Your task to perform on an android device: turn off priority inbox in the gmail app Image 0: 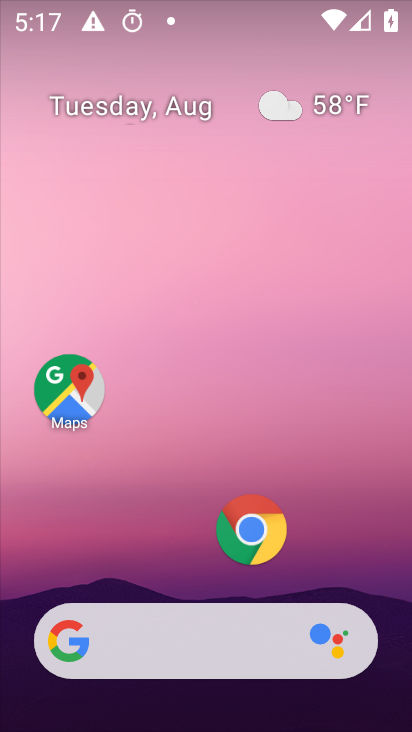
Step 0: drag from (165, 513) to (166, 128)
Your task to perform on an android device: turn off priority inbox in the gmail app Image 1: 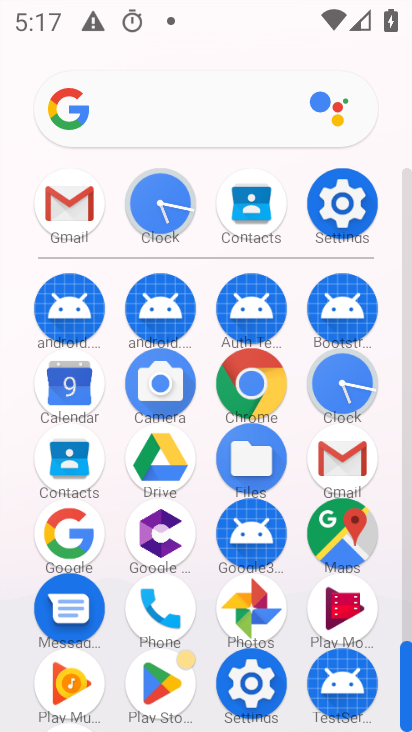
Step 1: click (74, 205)
Your task to perform on an android device: turn off priority inbox in the gmail app Image 2: 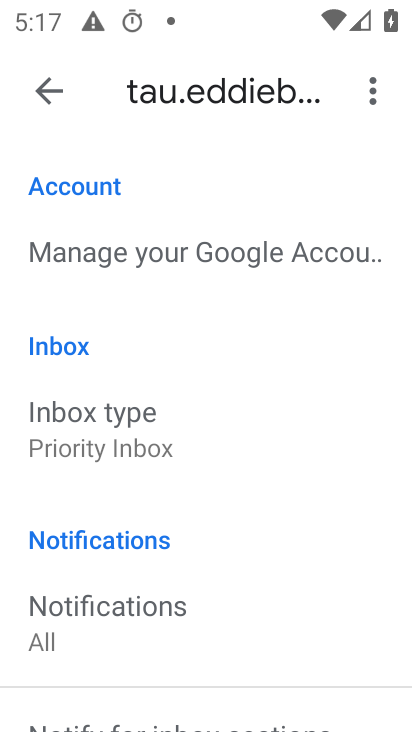
Step 2: click (143, 449)
Your task to perform on an android device: turn off priority inbox in the gmail app Image 3: 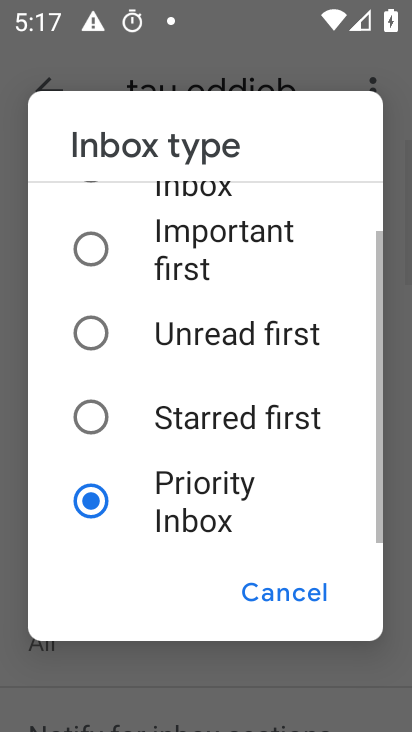
Step 3: drag from (146, 267) to (146, 453)
Your task to perform on an android device: turn off priority inbox in the gmail app Image 4: 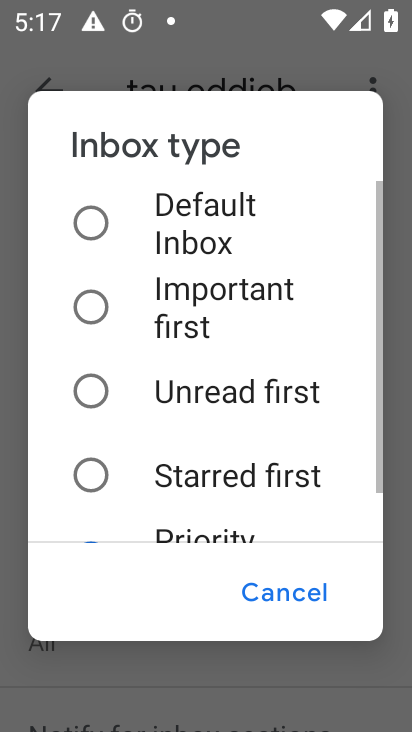
Step 4: click (83, 249)
Your task to perform on an android device: turn off priority inbox in the gmail app Image 5: 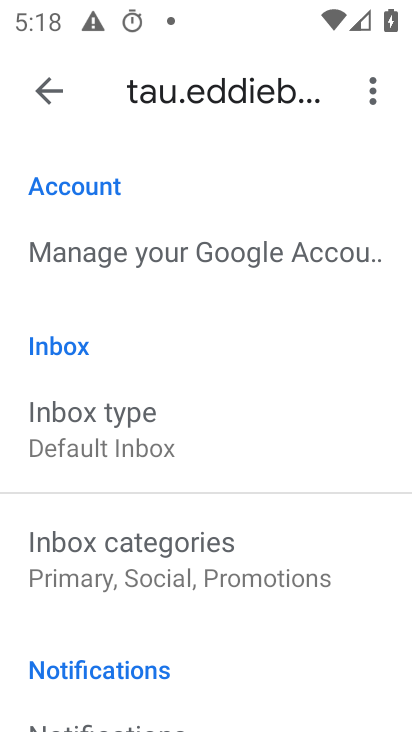
Step 5: task complete